Your task to perform on an android device: open wifi settings Image 0: 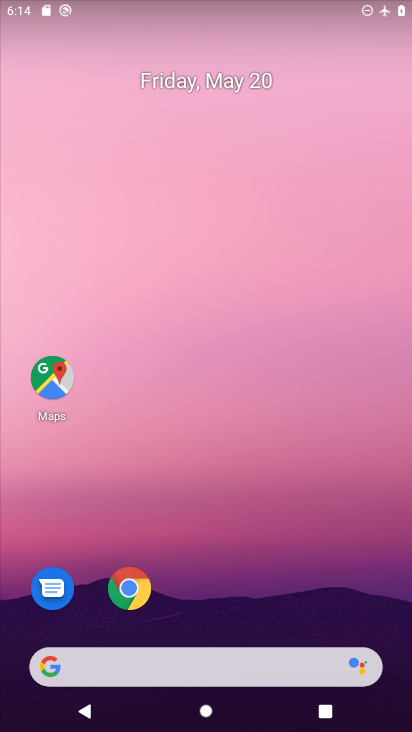
Step 0: drag from (247, 605) to (212, 119)
Your task to perform on an android device: open wifi settings Image 1: 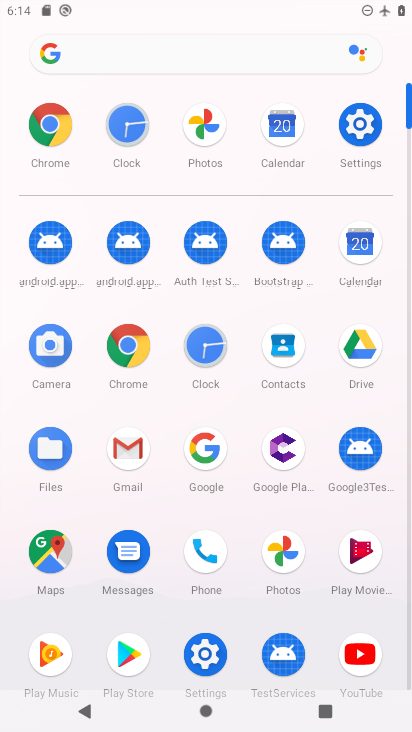
Step 1: click (344, 144)
Your task to perform on an android device: open wifi settings Image 2: 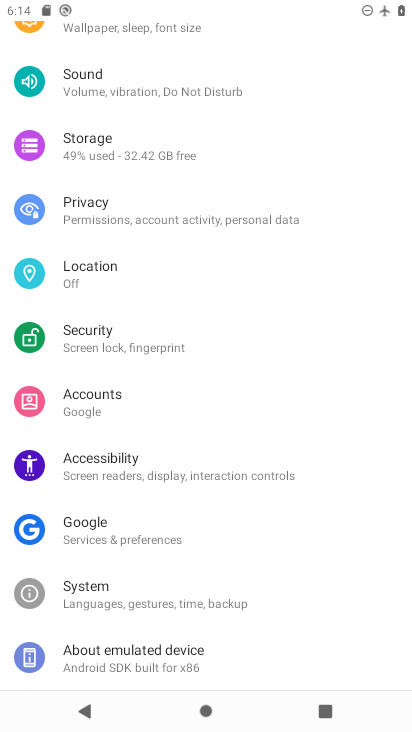
Step 2: drag from (192, 134) to (157, 452)
Your task to perform on an android device: open wifi settings Image 3: 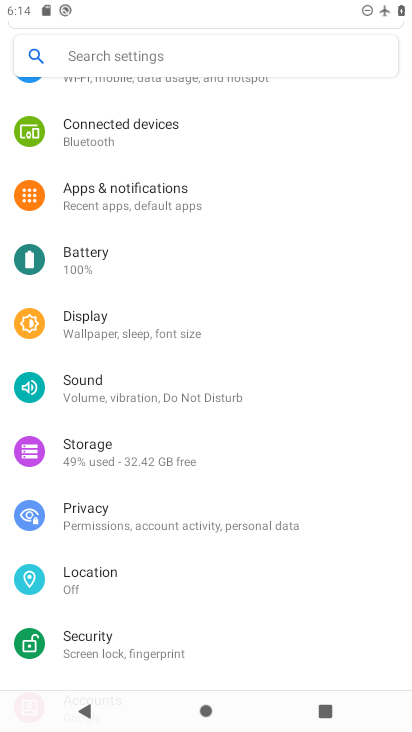
Step 3: drag from (160, 126) to (162, 525)
Your task to perform on an android device: open wifi settings Image 4: 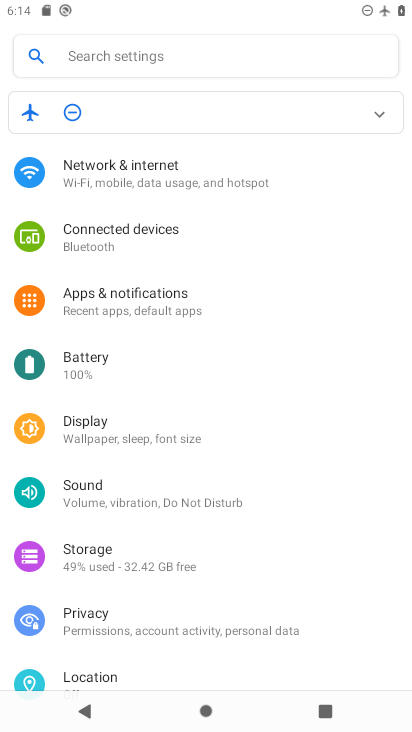
Step 4: click (146, 205)
Your task to perform on an android device: open wifi settings Image 5: 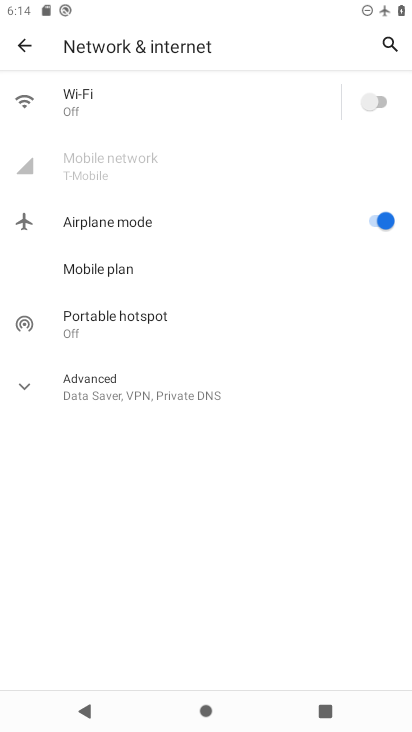
Step 5: click (233, 82)
Your task to perform on an android device: open wifi settings Image 6: 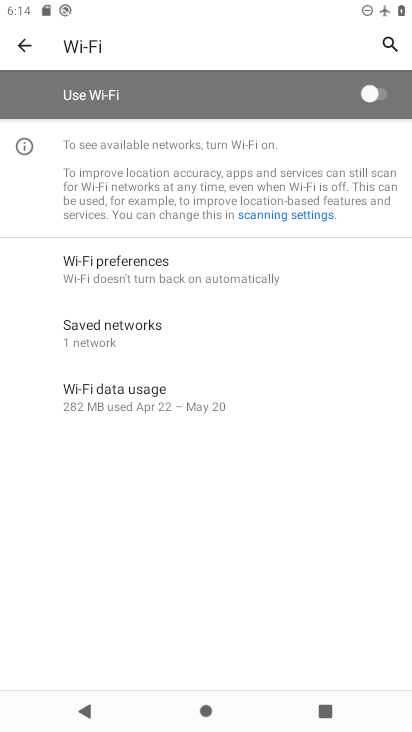
Step 6: task complete